Your task to perform on an android device: turn off data saver in the chrome app Image 0: 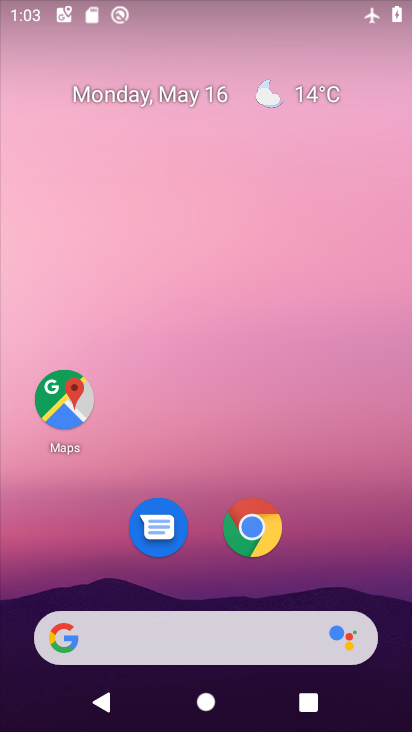
Step 0: click (267, 517)
Your task to perform on an android device: turn off data saver in the chrome app Image 1: 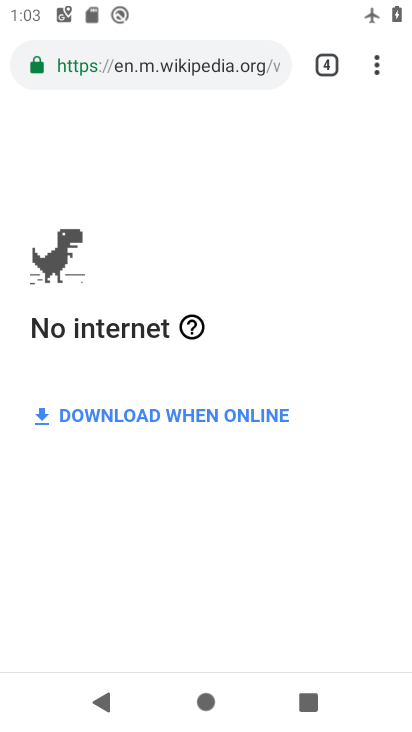
Step 1: click (379, 64)
Your task to perform on an android device: turn off data saver in the chrome app Image 2: 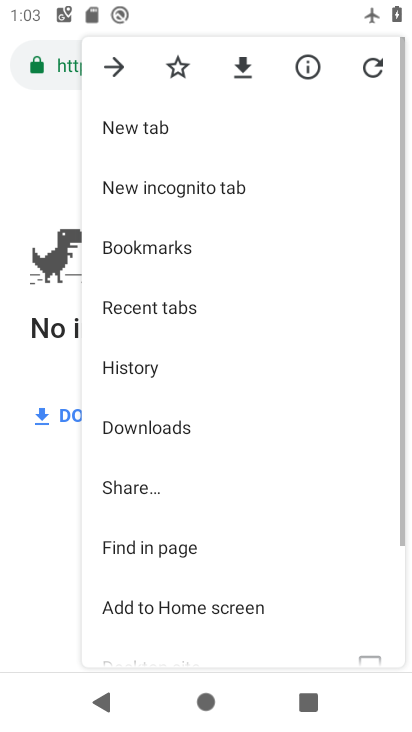
Step 2: drag from (156, 558) to (184, 308)
Your task to perform on an android device: turn off data saver in the chrome app Image 3: 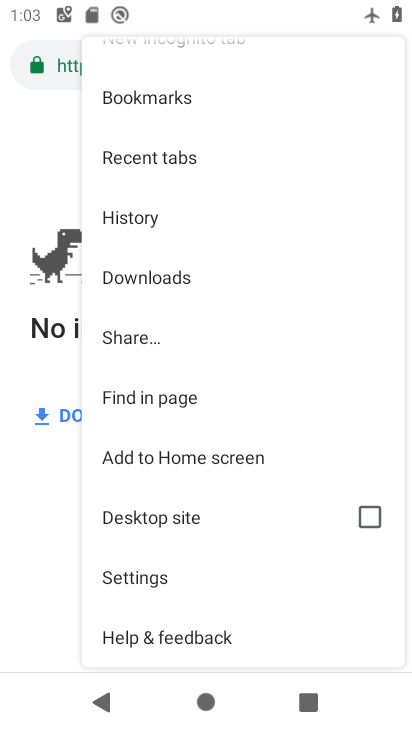
Step 3: click (143, 575)
Your task to perform on an android device: turn off data saver in the chrome app Image 4: 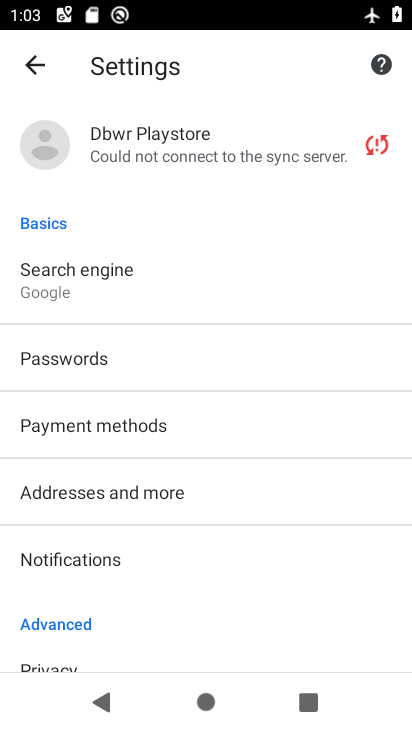
Step 4: drag from (126, 614) to (190, 199)
Your task to perform on an android device: turn off data saver in the chrome app Image 5: 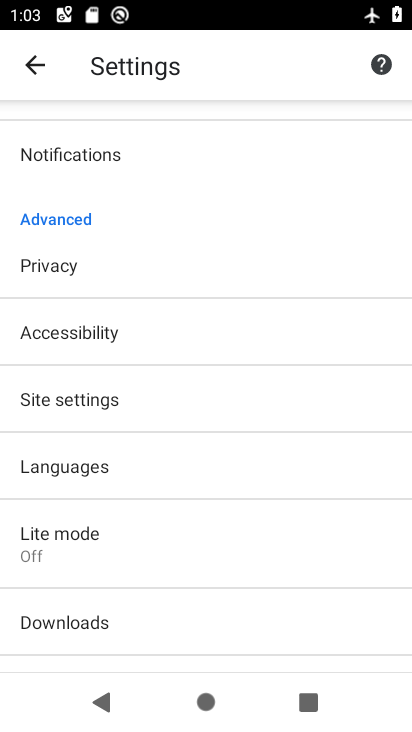
Step 5: click (93, 556)
Your task to perform on an android device: turn off data saver in the chrome app Image 6: 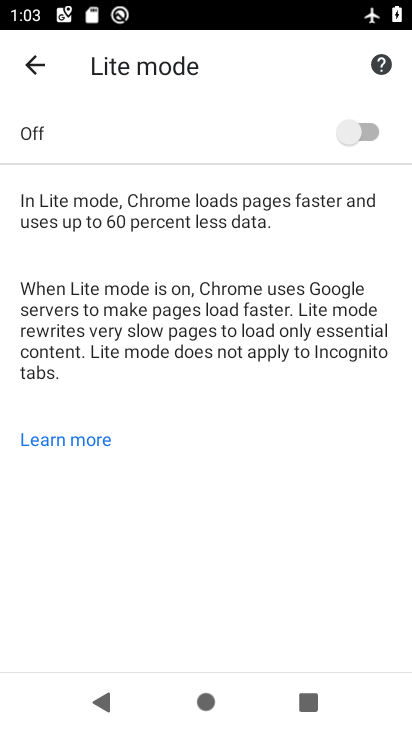
Step 6: task complete